Your task to perform on an android device: Open Google Image 0: 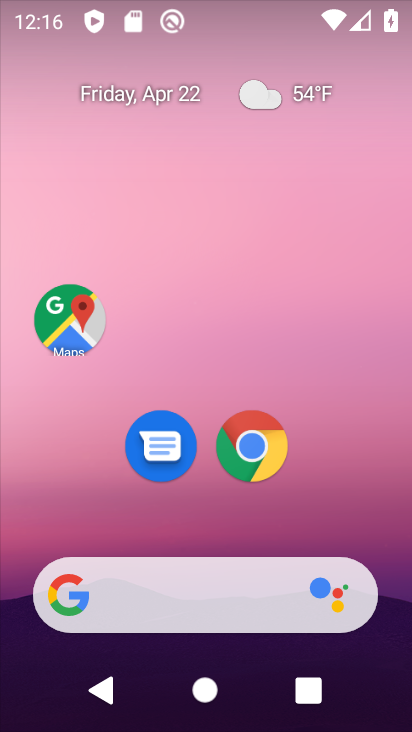
Step 0: drag from (396, 589) to (306, 14)
Your task to perform on an android device: Open Google Image 1: 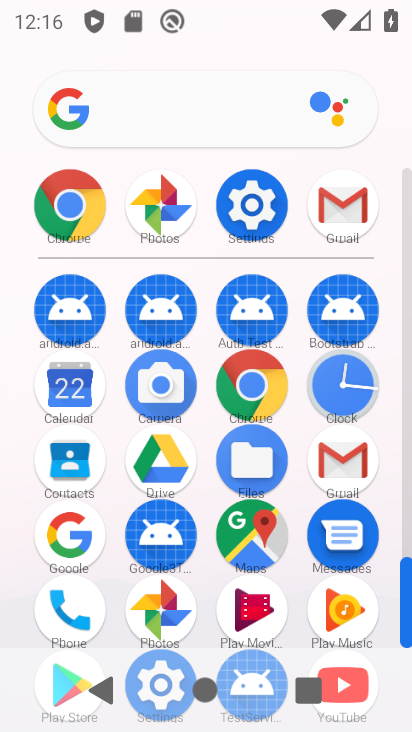
Step 1: click (94, 550)
Your task to perform on an android device: Open Google Image 2: 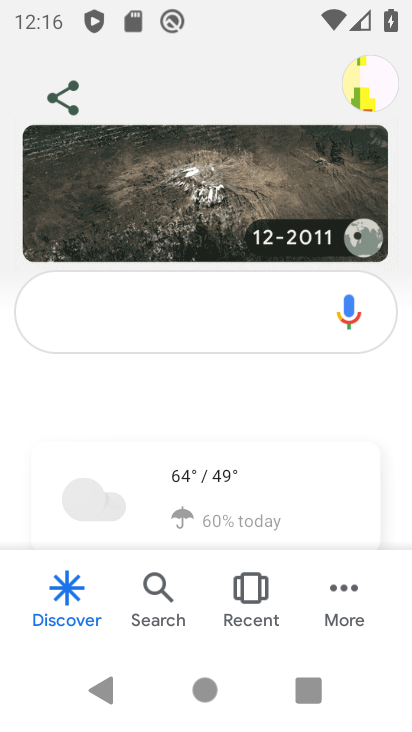
Step 2: task complete